Your task to perform on an android device: open app "Microsoft Excel" Image 0: 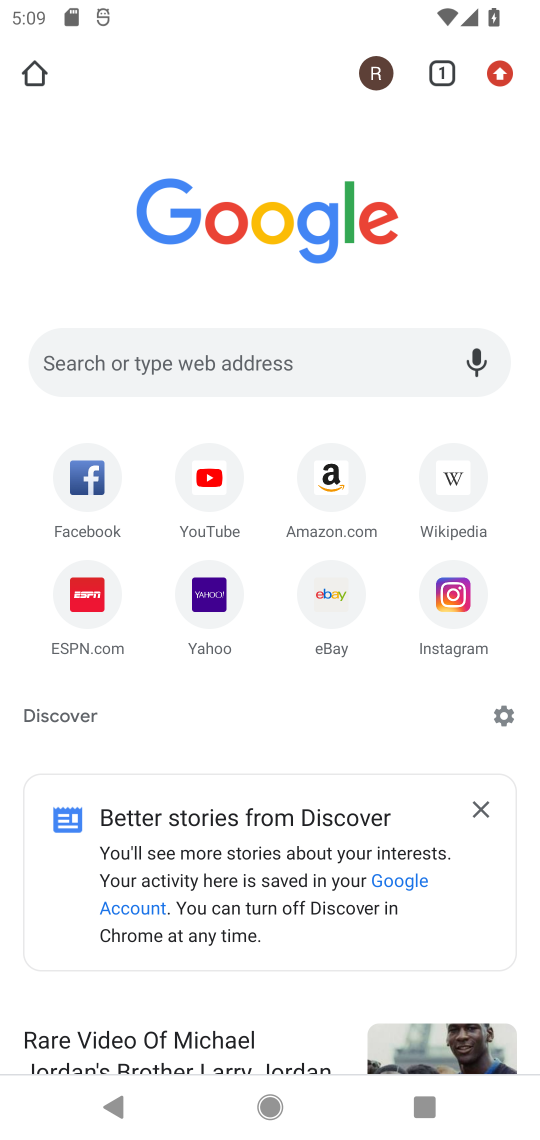
Step 0: press home button
Your task to perform on an android device: open app "Microsoft Excel" Image 1: 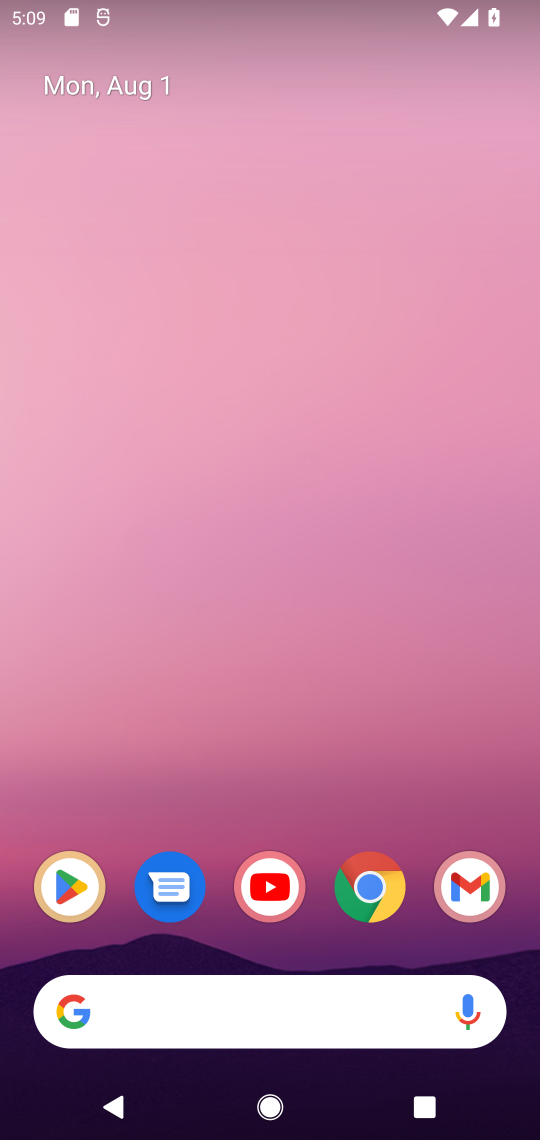
Step 1: click (50, 858)
Your task to perform on an android device: open app "Microsoft Excel" Image 2: 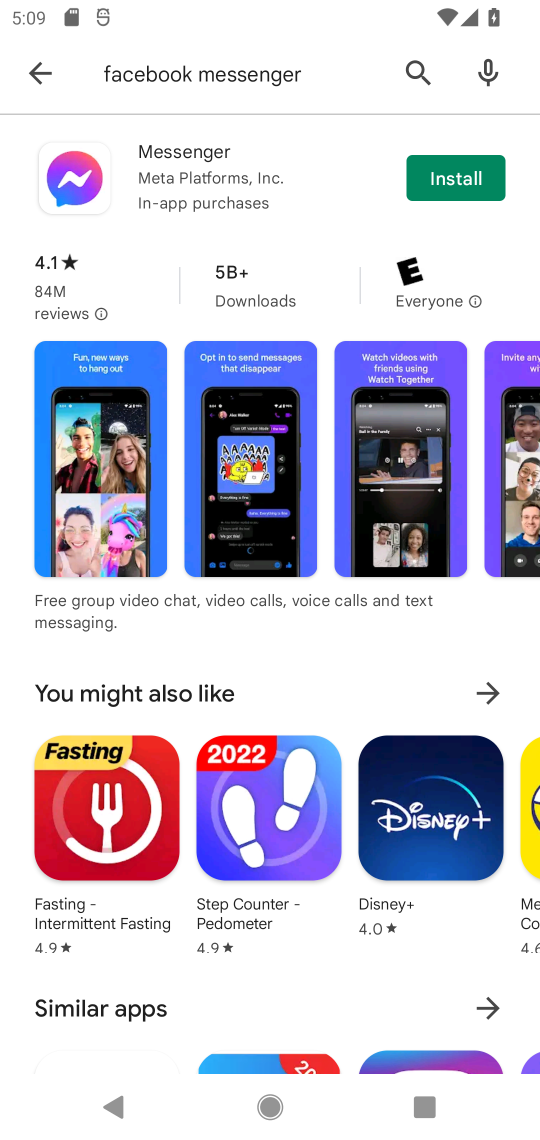
Step 2: click (45, 67)
Your task to perform on an android device: open app "Microsoft Excel" Image 3: 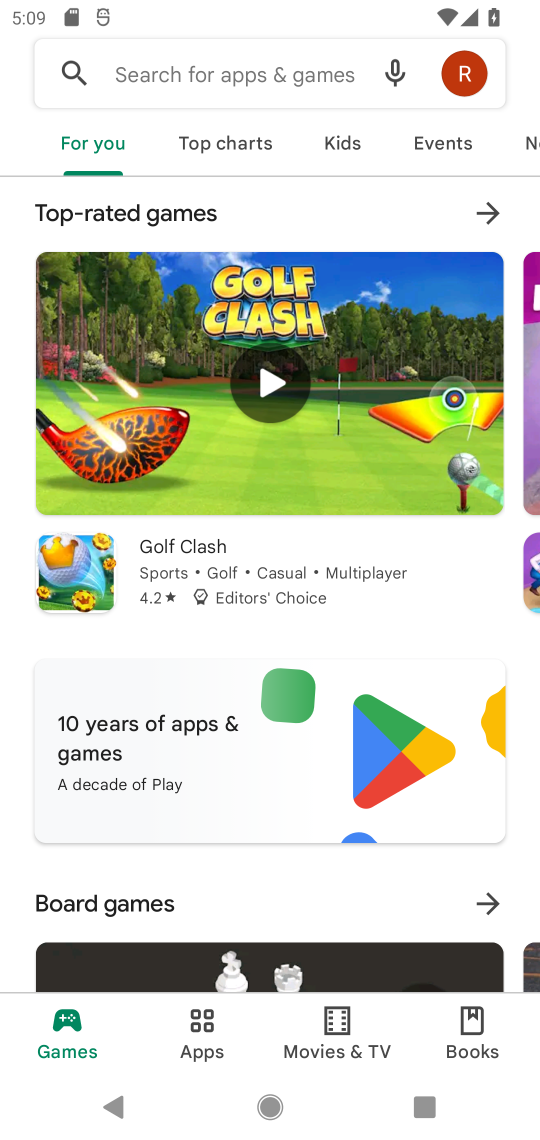
Step 3: click (262, 58)
Your task to perform on an android device: open app "Microsoft Excel" Image 4: 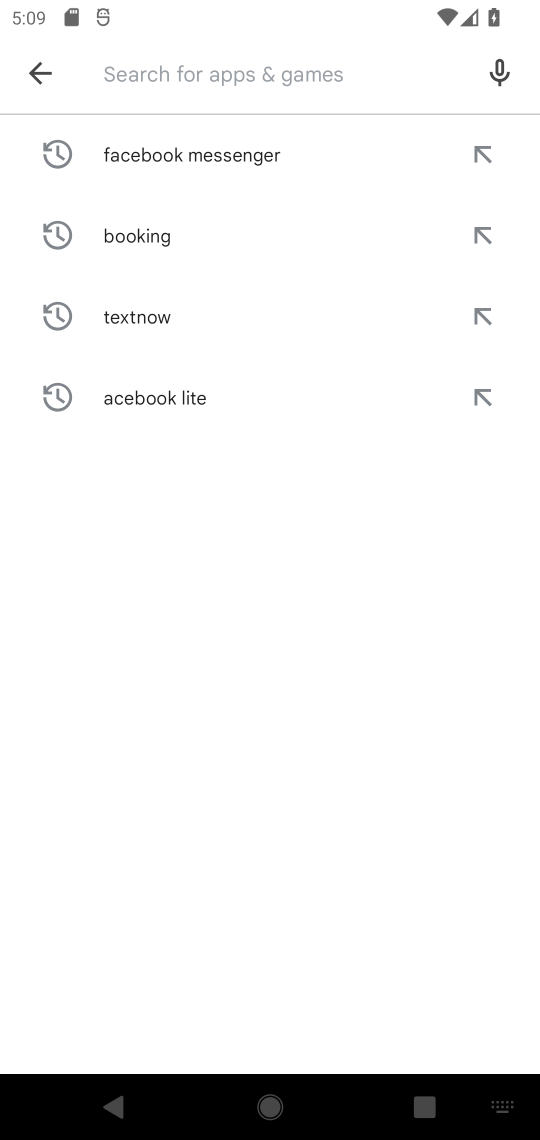
Step 4: click (333, 1129)
Your task to perform on an android device: open app "Microsoft Excel" Image 5: 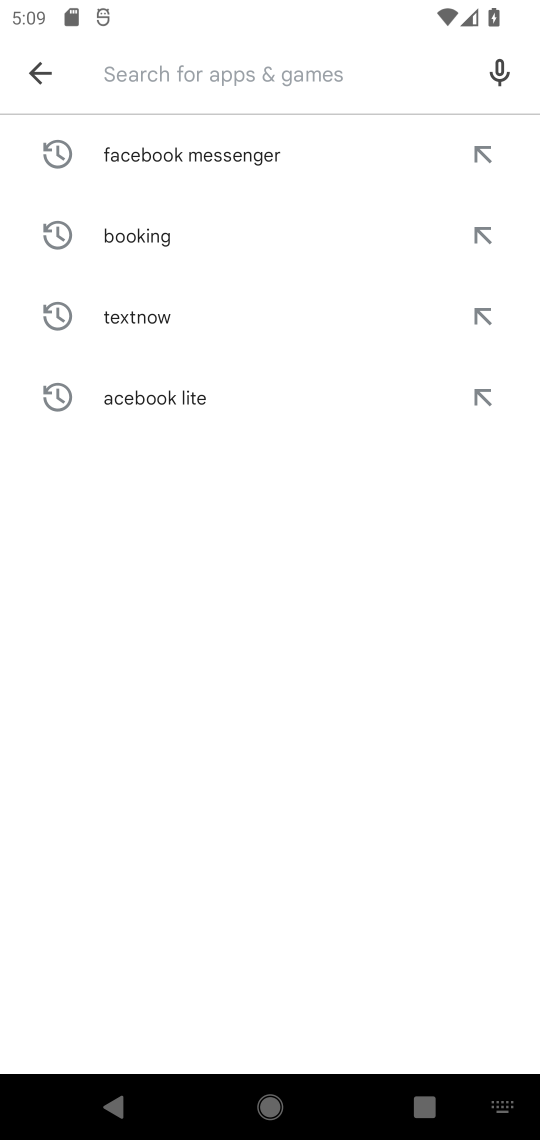
Step 5: type "Microsoft Excel"
Your task to perform on an android device: open app "Microsoft Excel" Image 6: 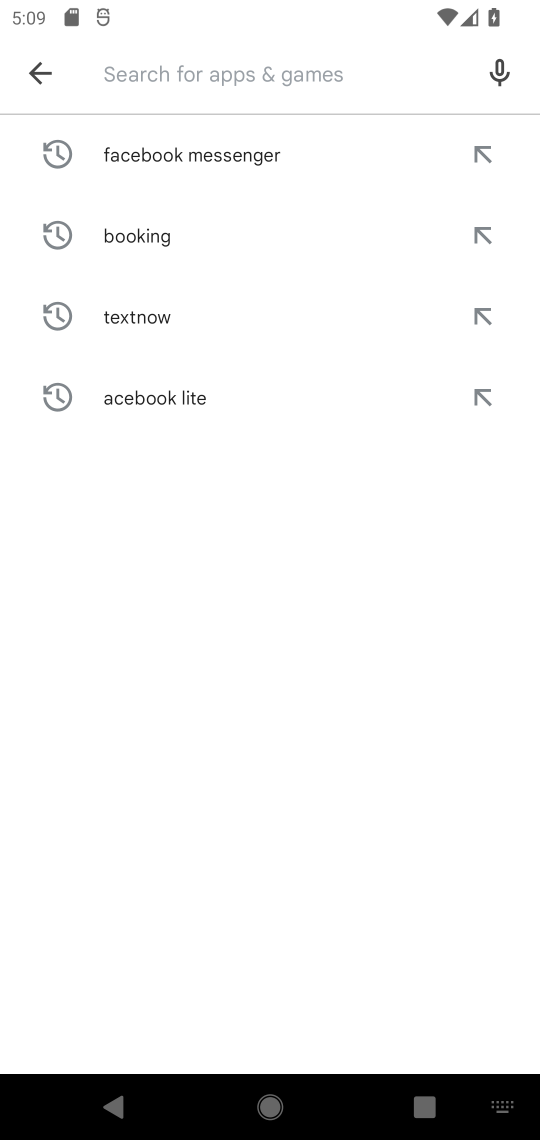
Step 6: click (477, 180)
Your task to perform on an android device: open app "Microsoft Excel" Image 7: 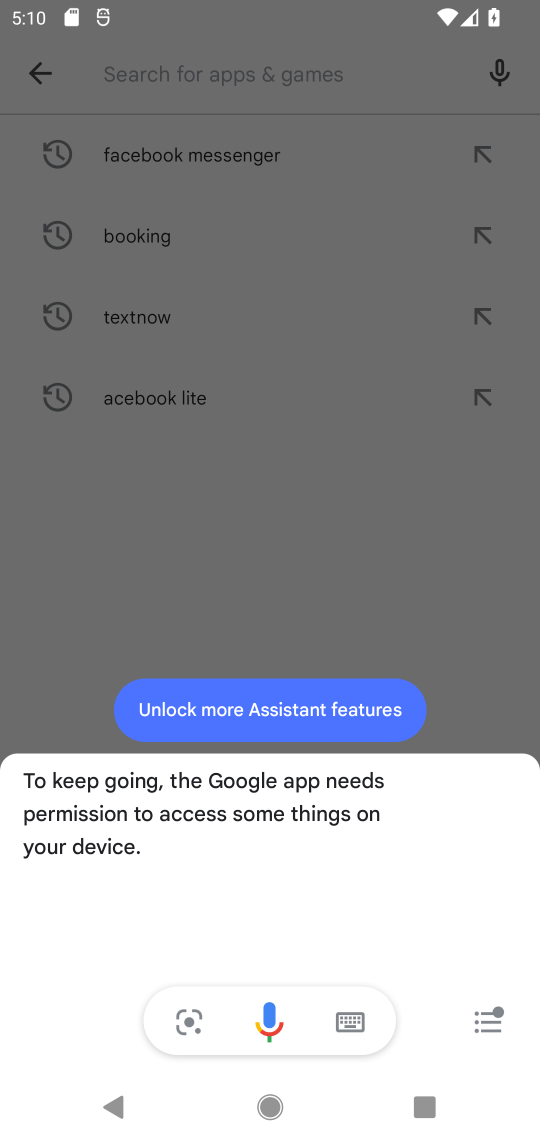
Step 7: click (406, 631)
Your task to perform on an android device: open app "Microsoft Excel" Image 8: 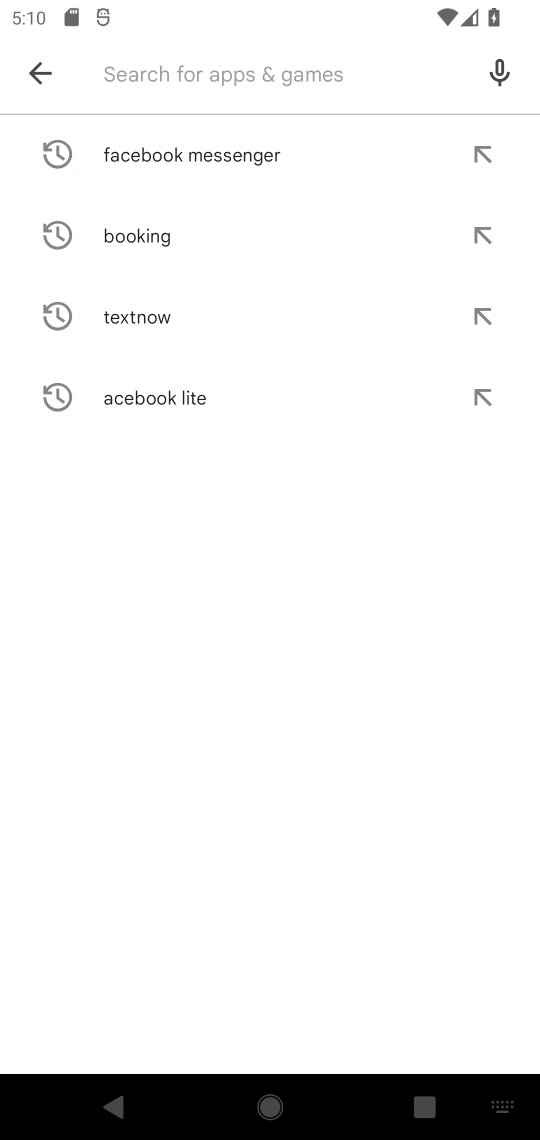
Step 8: type "Microsoft Exce"
Your task to perform on an android device: open app "Microsoft Excel" Image 9: 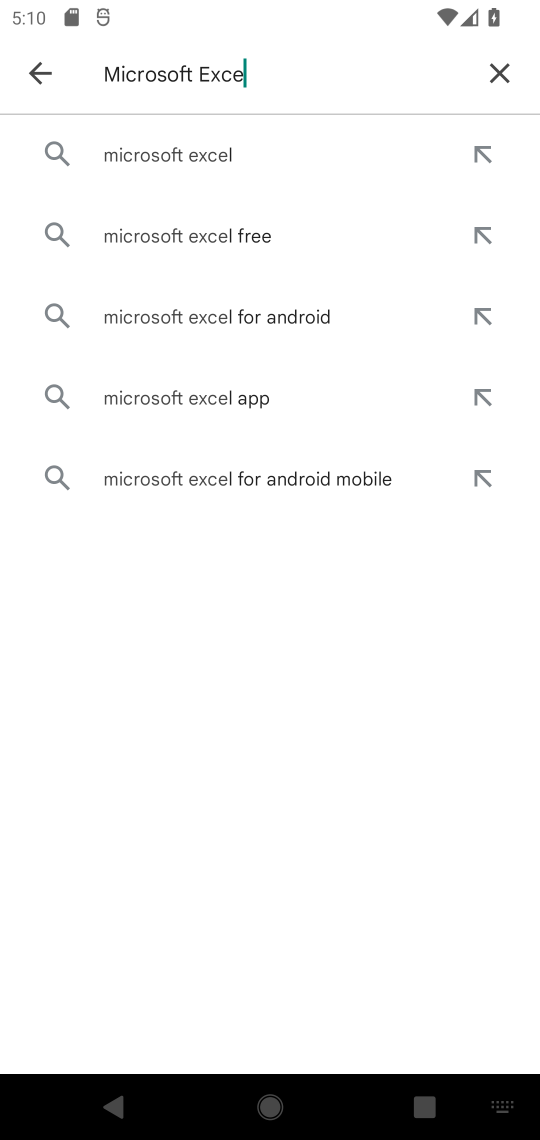
Step 9: click (185, 181)
Your task to perform on an android device: open app "Microsoft Excel" Image 10: 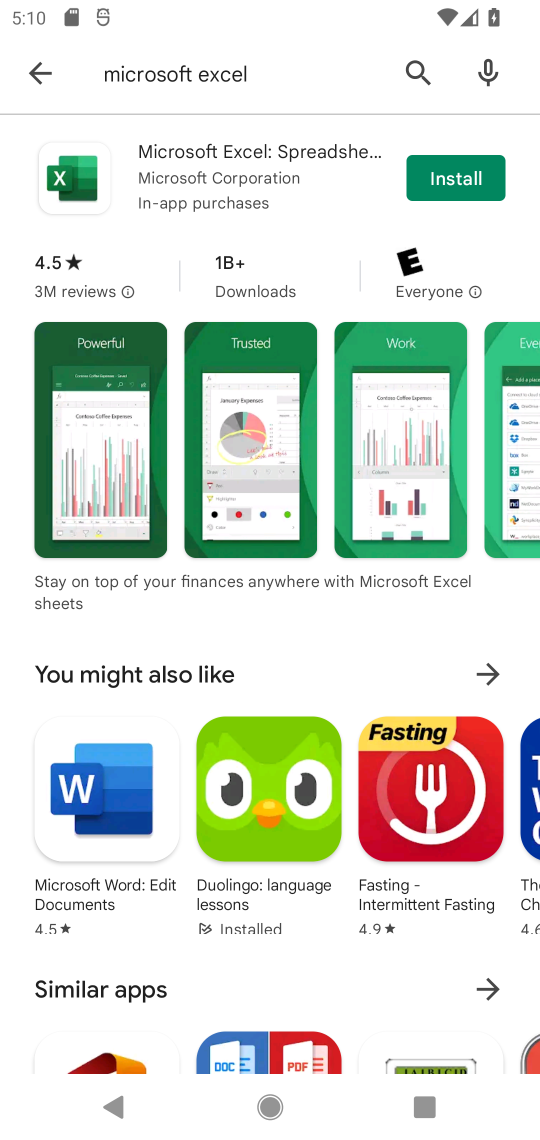
Step 10: task complete